Your task to perform on an android device: Go to Yahoo.com Image 0: 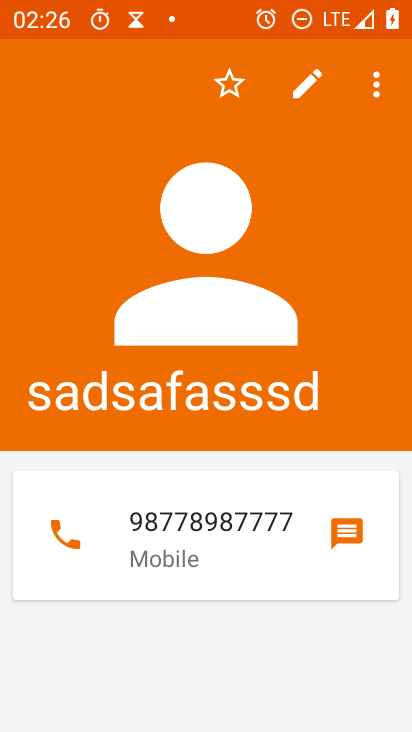
Step 0: press home button
Your task to perform on an android device: Go to Yahoo.com Image 1: 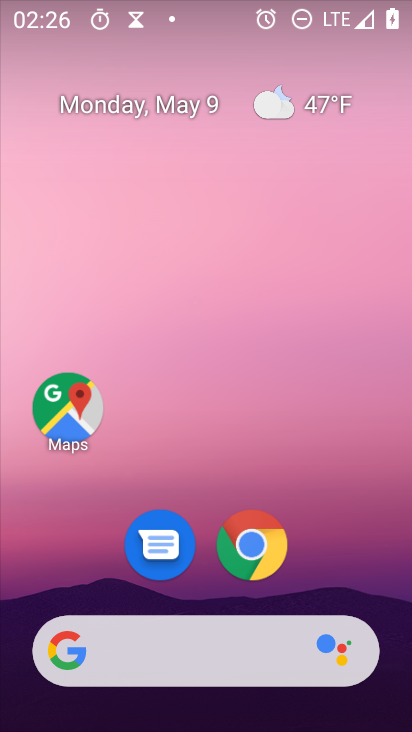
Step 1: drag from (338, 599) to (340, 4)
Your task to perform on an android device: Go to Yahoo.com Image 2: 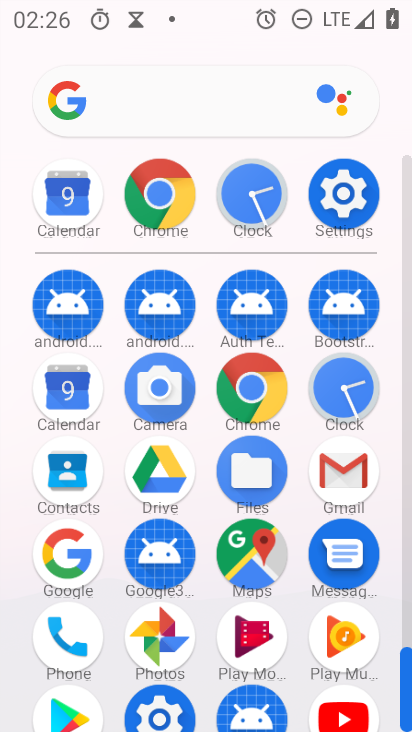
Step 2: click (263, 404)
Your task to perform on an android device: Go to Yahoo.com Image 3: 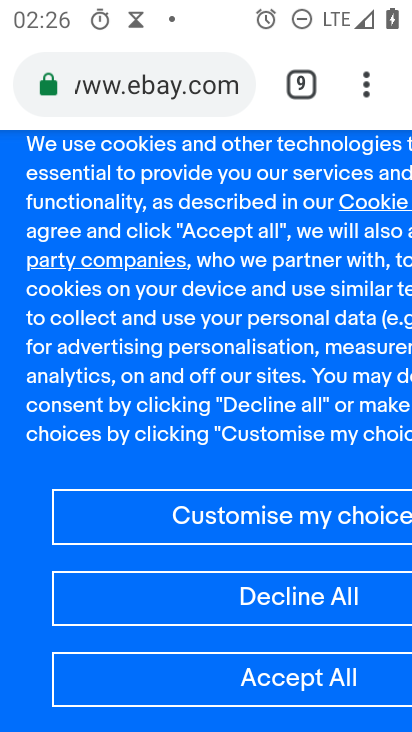
Step 3: drag from (360, 80) to (294, 225)
Your task to perform on an android device: Go to Yahoo.com Image 4: 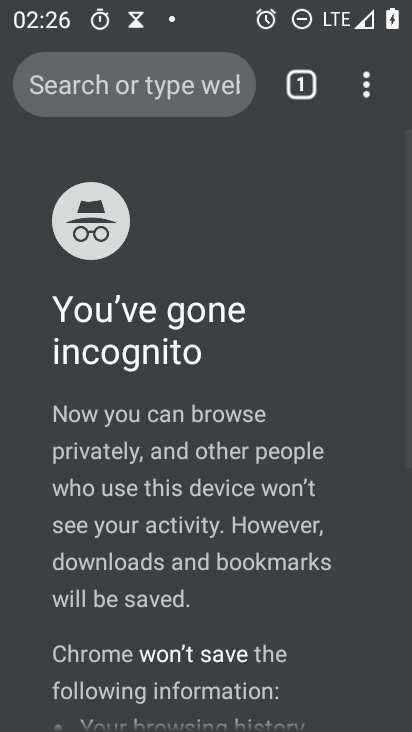
Step 4: press home button
Your task to perform on an android device: Go to Yahoo.com Image 5: 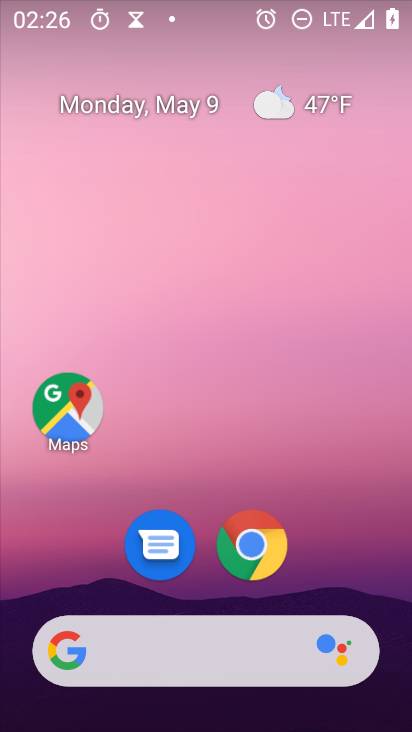
Step 5: click (258, 563)
Your task to perform on an android device: Go to Yahoo.com Image 6: 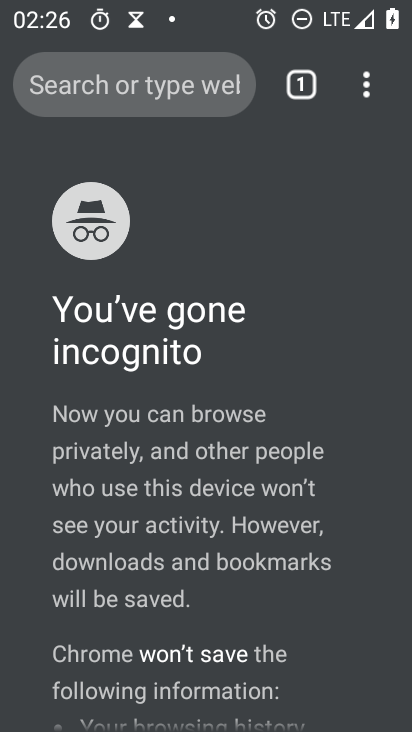
Step 6: press back button
Your task to perform on an android device: Go to Yahoo.com Image 7: 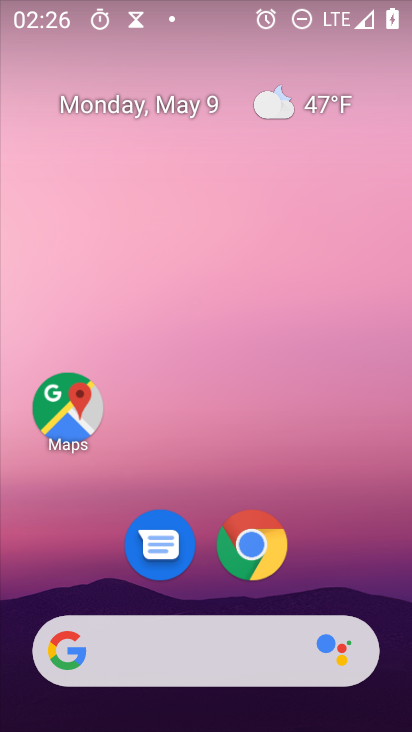
Step 7: click (256, 550)
Your task to perform on an android device: Go to Yahoo.com Image 8: 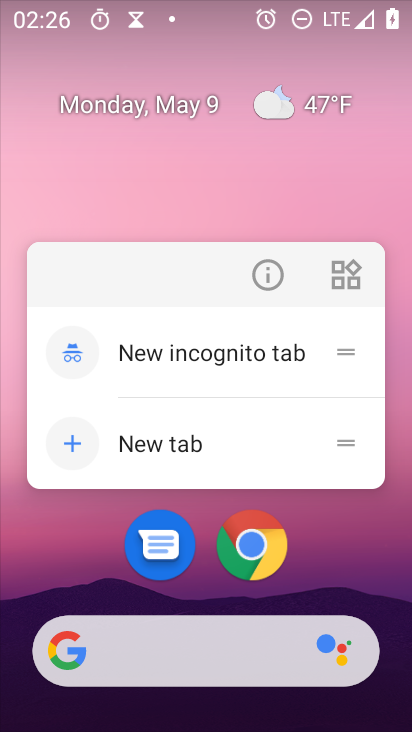
Step 8: drag from (323, 597) to (331, 7)
Your task to perform on an android device: Go to Yahoo.com Image 9: 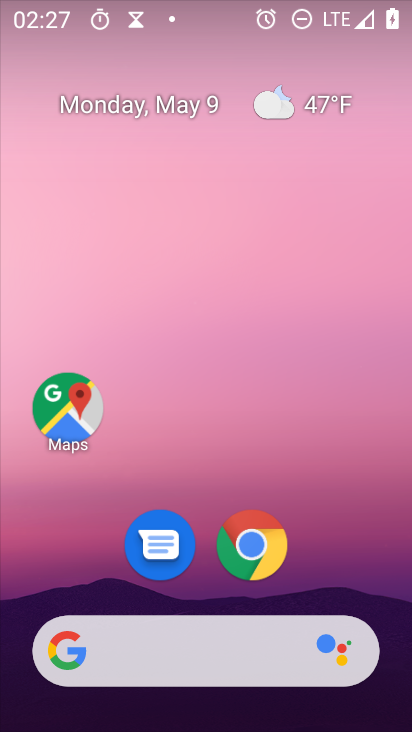
Step 9: drag from (374, 613) to (396, 6)
Your task to perform on an android device: Go to Yahoo.com Image 10: 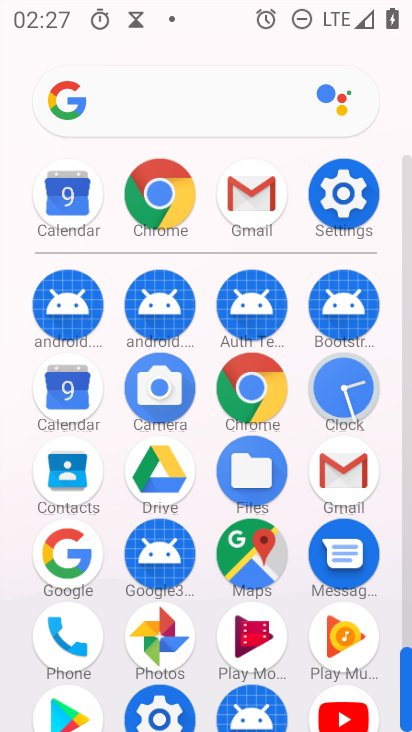
Step 10: click (269, 398)
Your task to perform on an android device: Go to Yahoo.com Image 11: 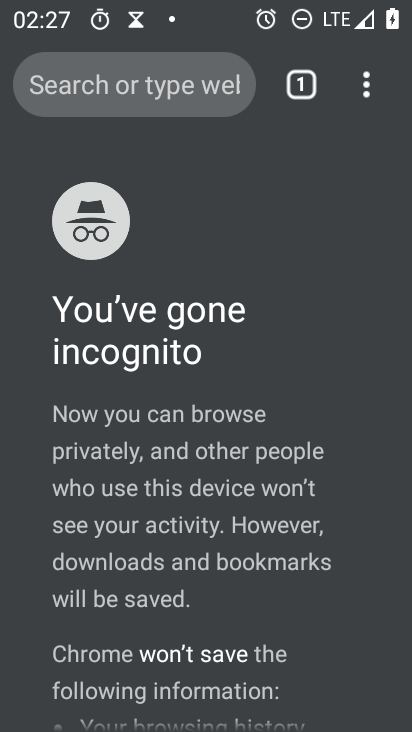
Step 11: drag from (363, 85) to (237, 164)
Your task to perform on an android device: Go to Yahoo.com Image 12: 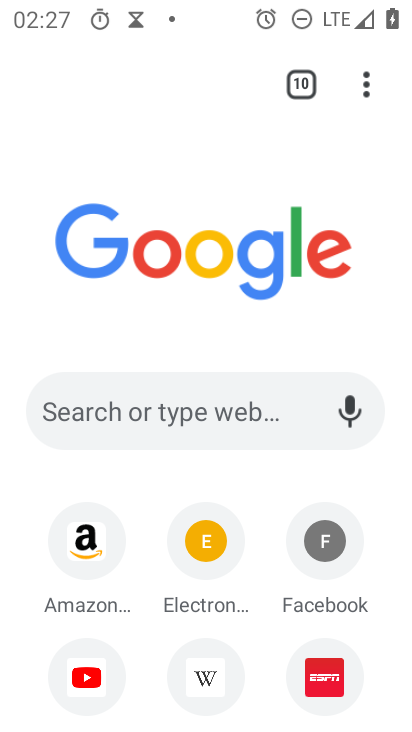
Step 12: drag from (286, 640) to (295, 343)
Your task to perform on an android device: Go to Yahoo.com Image 13: 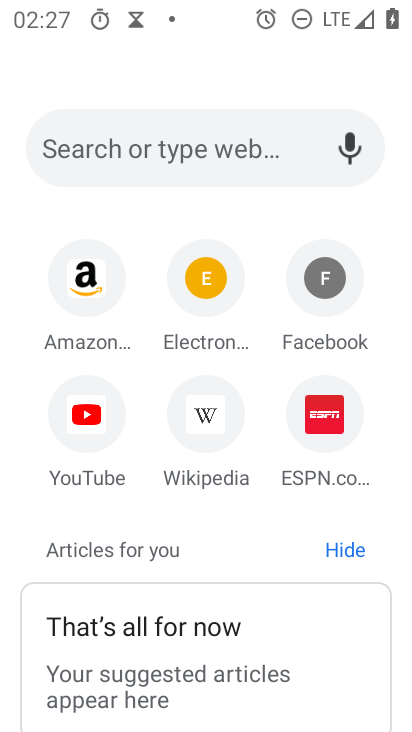
Step 13: click (245, 143)
Your task to perform on an android device: Go to Yahoo.com Image 14: 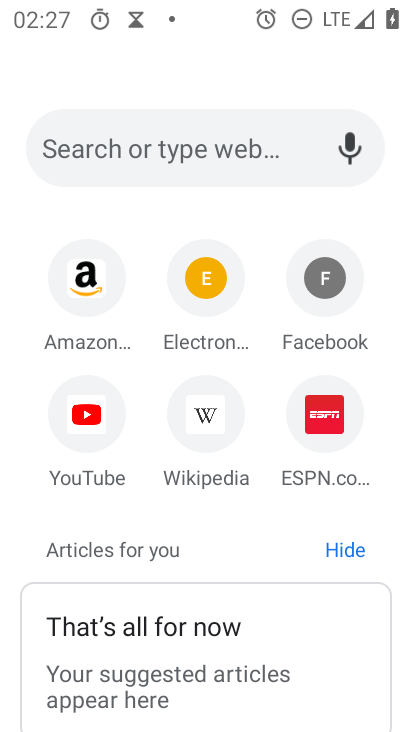
Step 14: click (245, 143)
Your task to perform on an android device: Go to Yahoo.com Image 15: 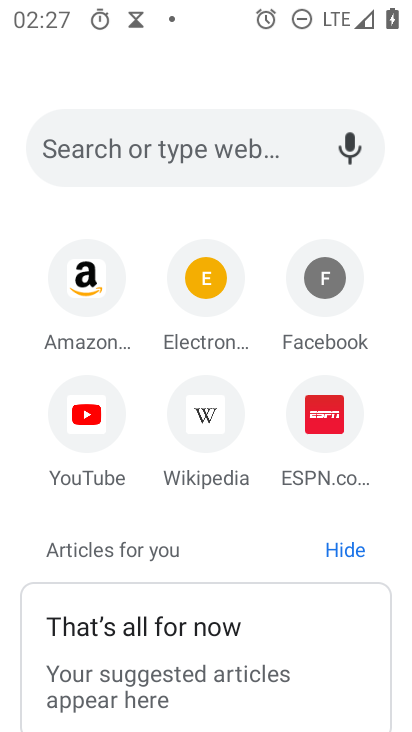
Step 15: click (230, 170)
Your task to perform on an android device: Go to Yahoo.com Image 16: 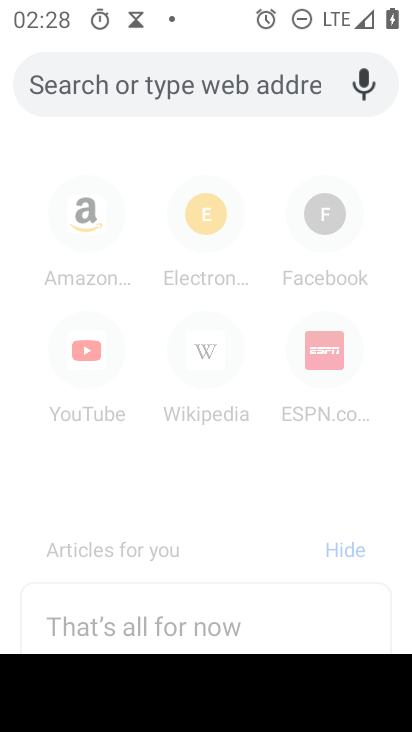
Step 16: type "yahoo.com"
Your task to perform on an android device: Go to Yahoo.com Image 17: 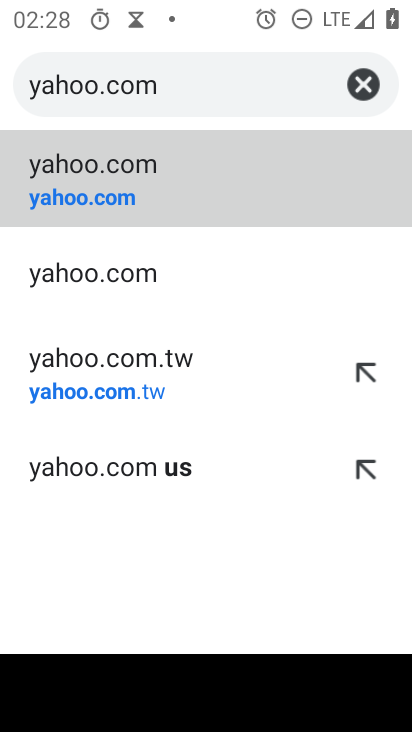
Step 17: click (142, 182)
Your task to perform on an android device: Go to Yahoo.com Image 18: 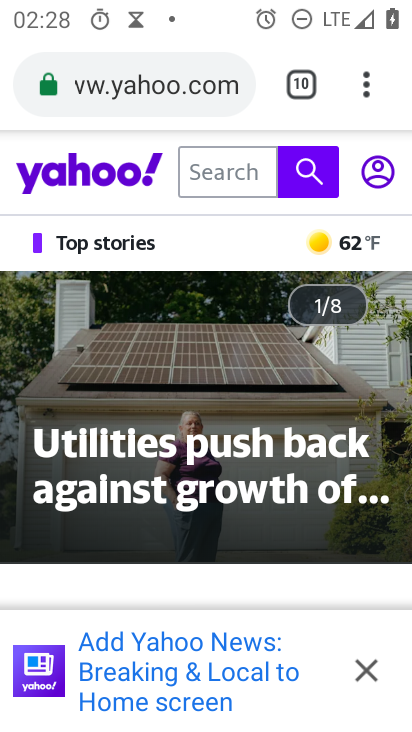
Step 18: task complete